Your task to perform on an android device: Go to CNN.com Image 0: 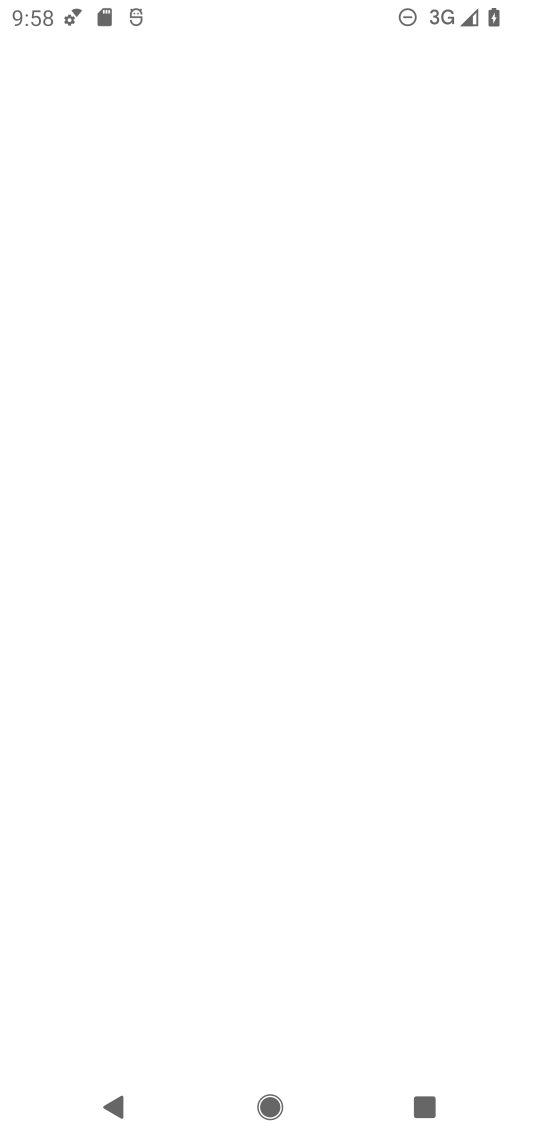
Step 0: press home button
Your task to perform on an android device: Go to CNN.com Image 1: 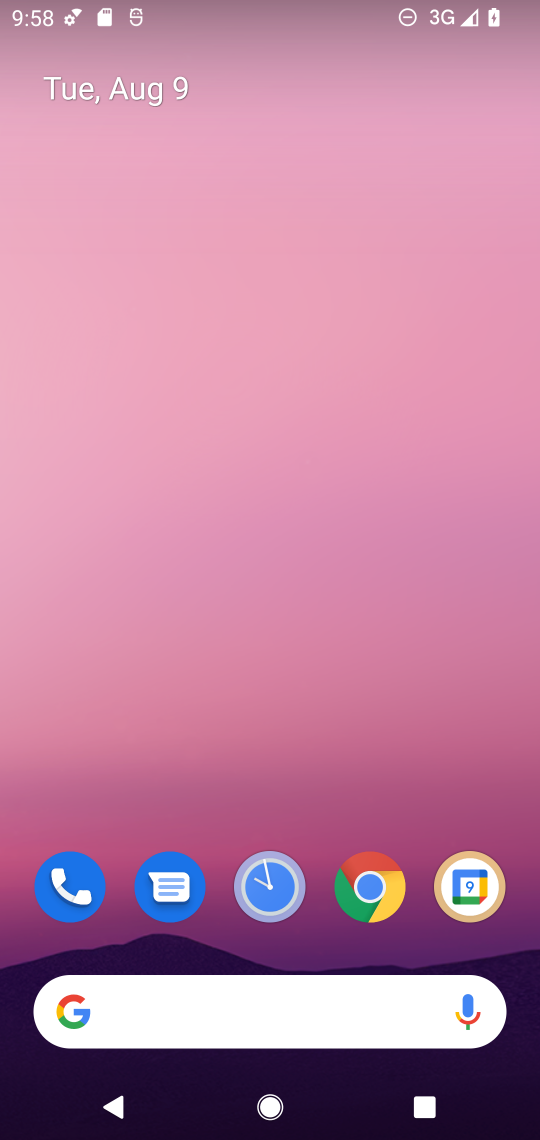
Step 1: click (355, 864)
Your task to perform on an android device: Go to CNN.com Image 2: 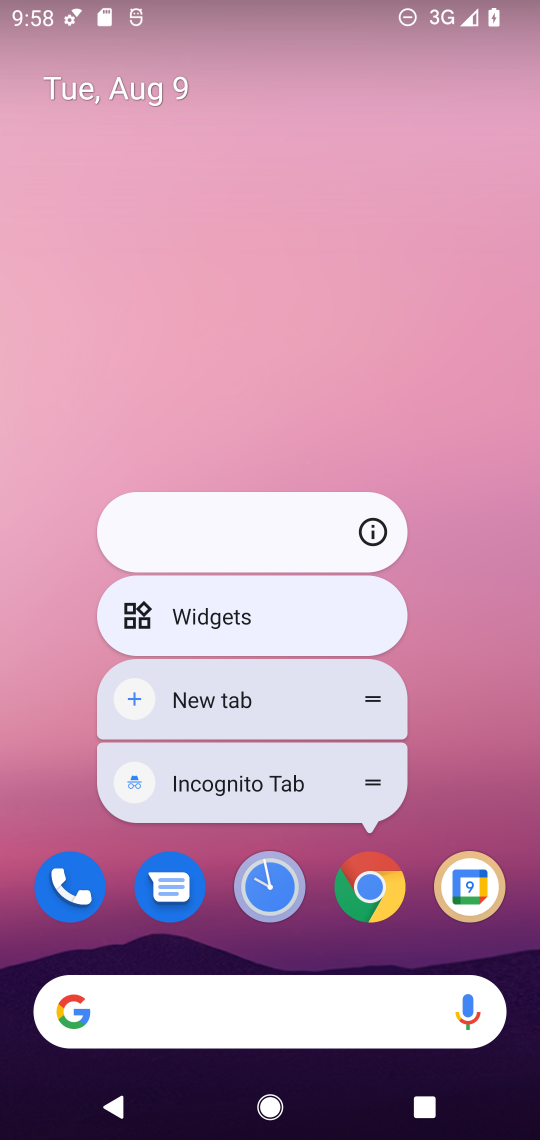
Step 2: click (378, 890)
Your task to perform on an android device: Go to CNN.com Image 3: 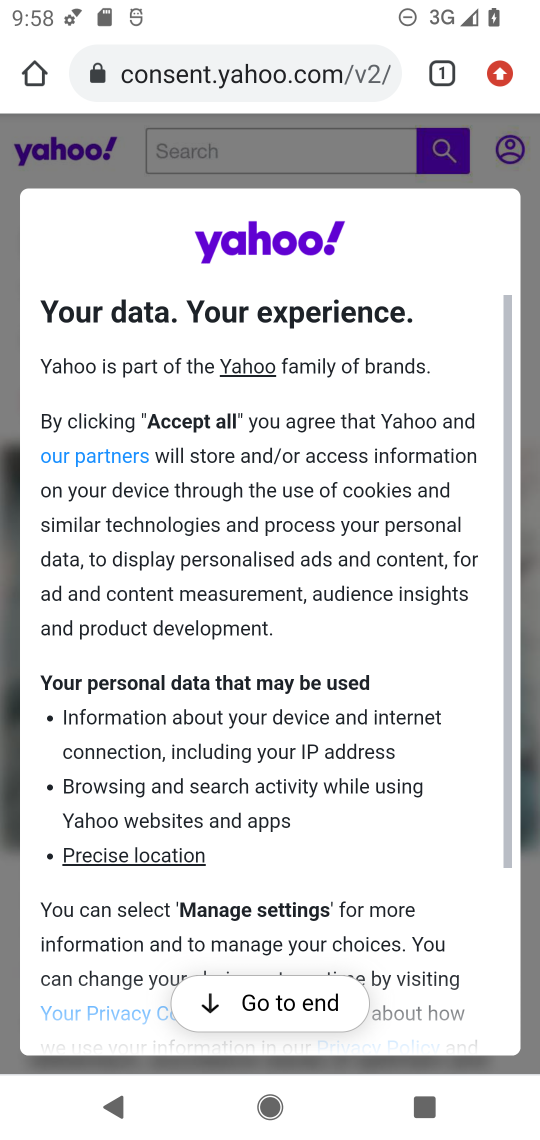
Step 3: click (435, 74)
Your task to perform on an android device: Go to CNN.com Image 4: 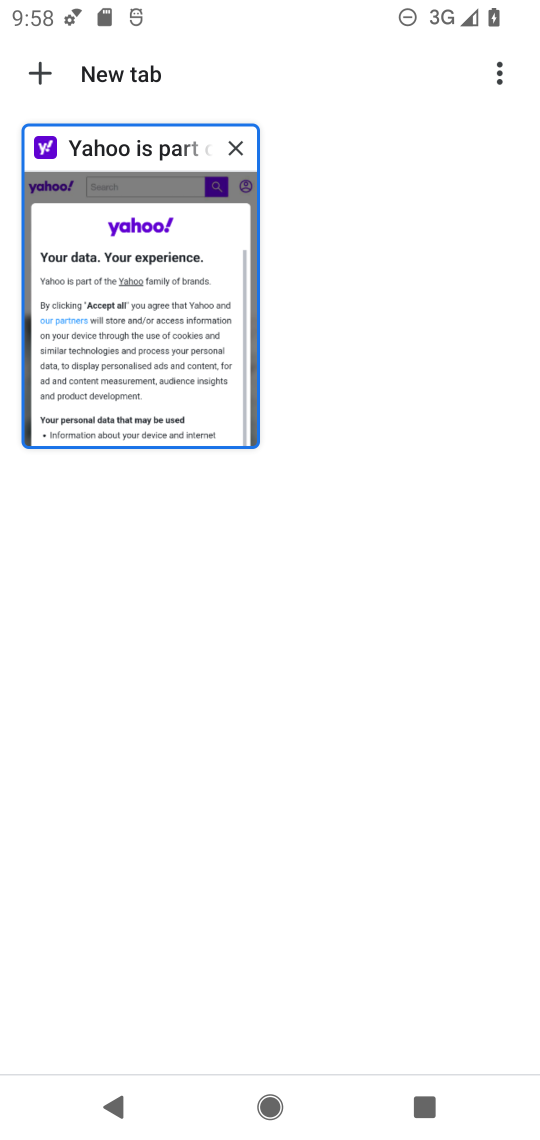
Step 4: click (54, 67)
Your task to perform on an android device: Go to CNN.com Image 5: 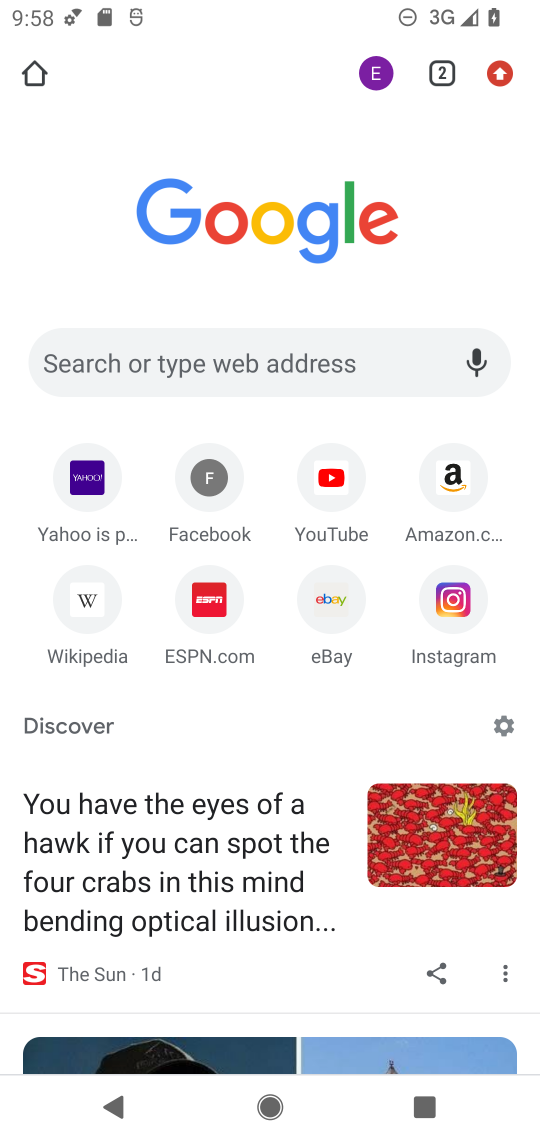
Step 5: click (250, 367)
Your task to perform on an android device: Go to CNN.com Image 6: 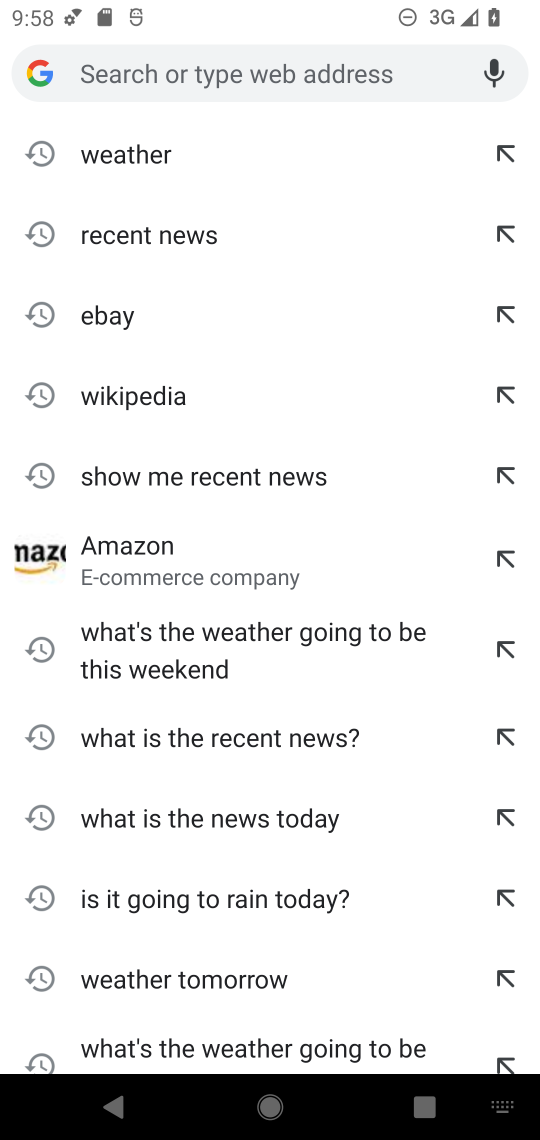
Step 6: type "CNN.com"
Your task to perform on an android device: Go to CNN.com Image 7: 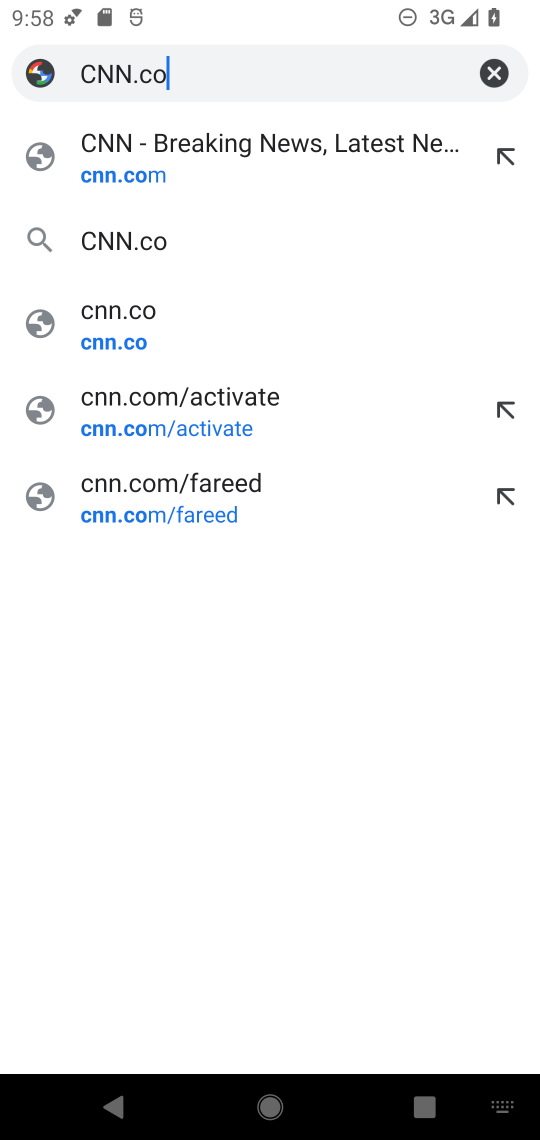
Step 7: type ""
Your task to perform on an android device: Go to CNN.com Image 8: 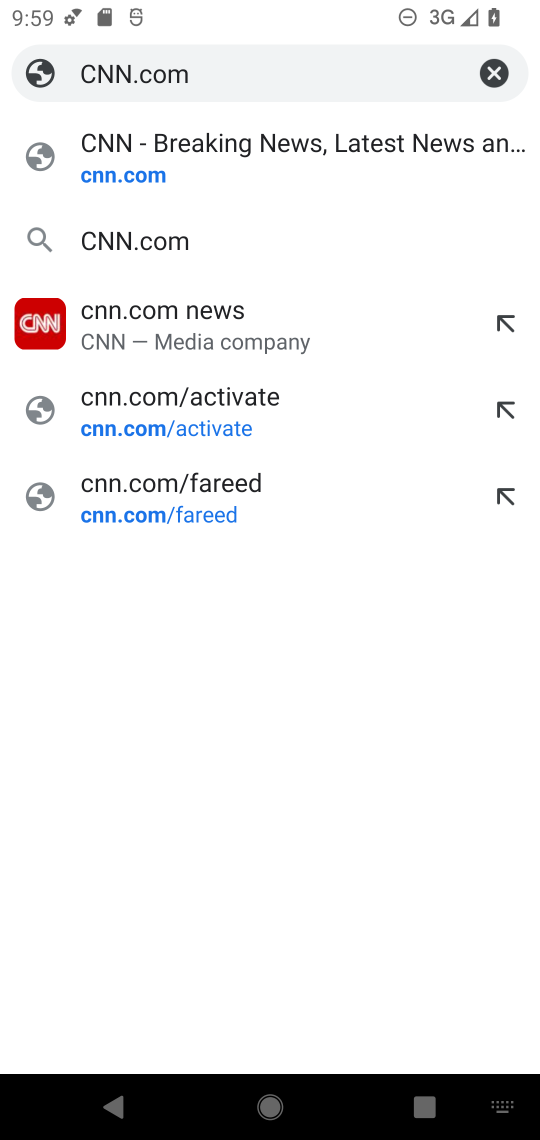
Step 8: click (224, 309)
Your task to perform on an android device: Go to CNN.com Image 9: 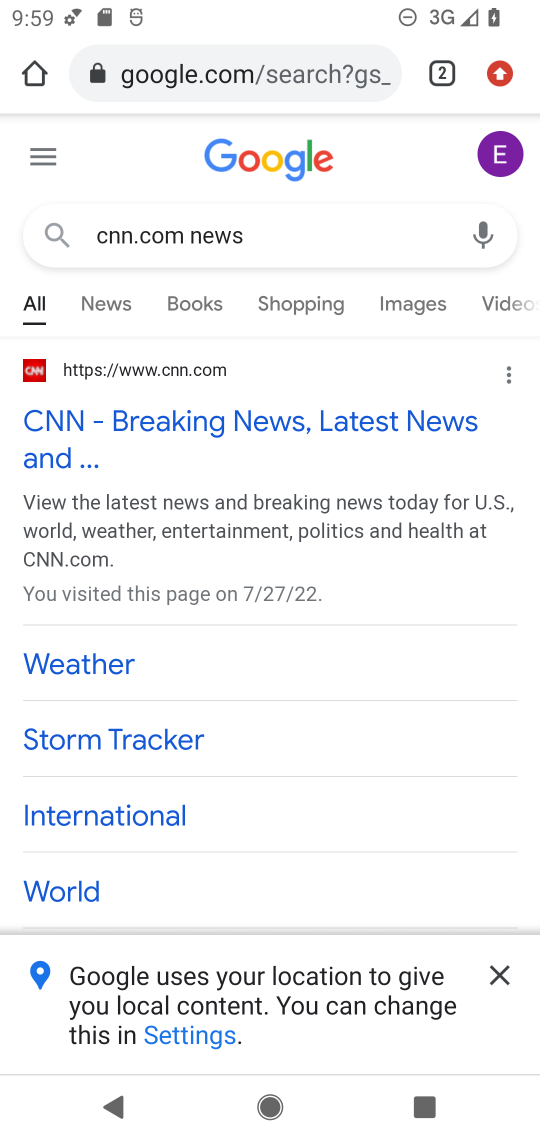
Step 9: click (189, 422)
Your task to perform on an android device: Go to CNN.com Image 10: 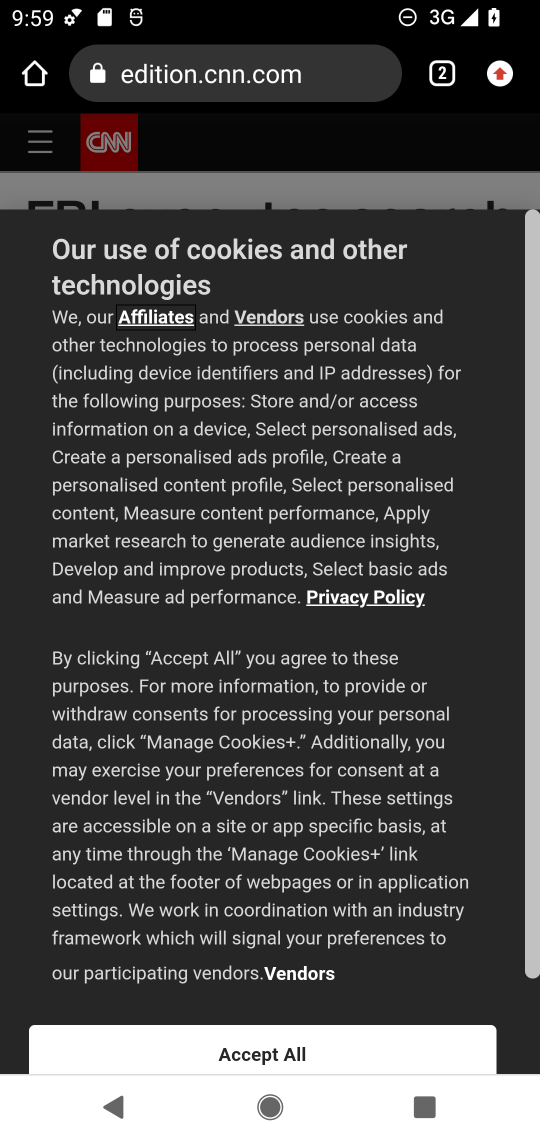
Step 10: task complete